Your task to perform on an android device: turn on airplane mode Image 0: 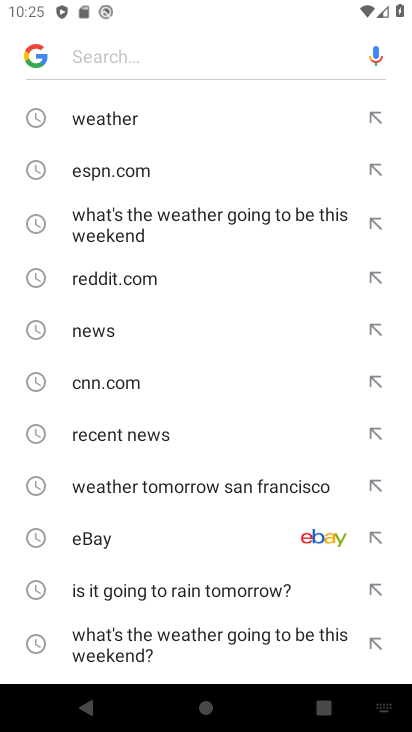
Step 0: press home button
Your task to perform on an android device: turn on airplane mode Image 1: 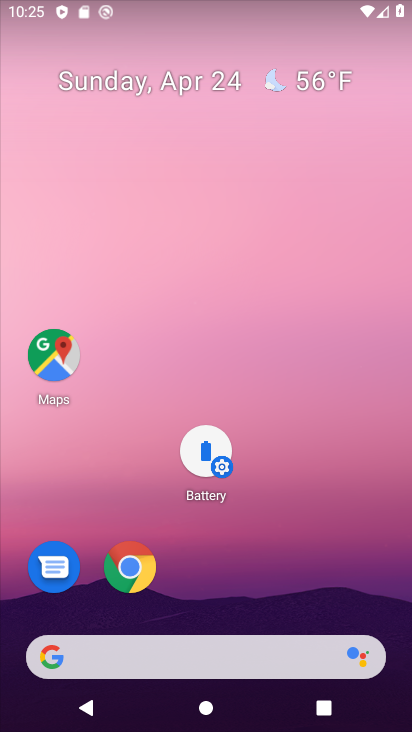
Step 1: drag from (174, 423) to (282, 219)
Your task to perform on an android device: turn on airplane mode Image 2: 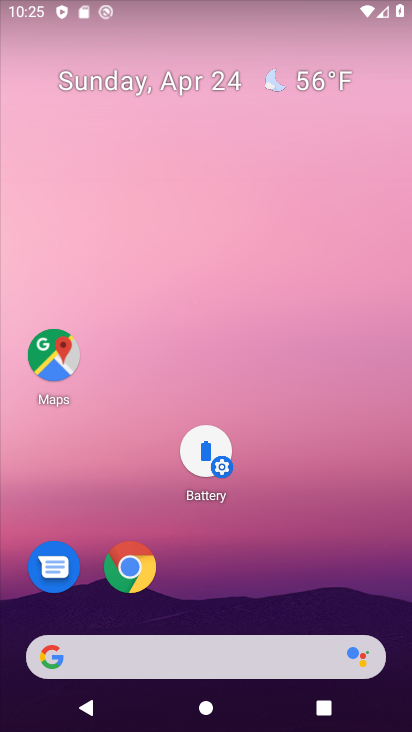
Step 2: drag from (314, 144) to (318, 399)
Your task to perform on an android device: turn on airplane mode Image 3: 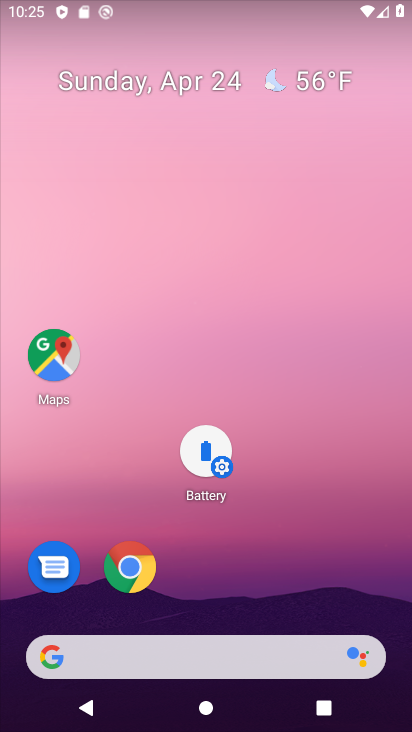
Step 3: drag from (34, 699) to (261, 204)
Your task to perform on an android device: turn on airplane mode Image 4: 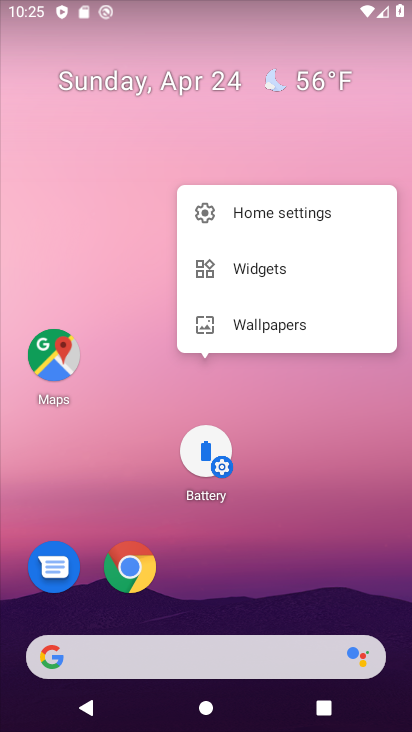
Step 4: drag from (233, 544) to (313, 475)
Your task to perform on an android device: turn on airplane mode Image 5: 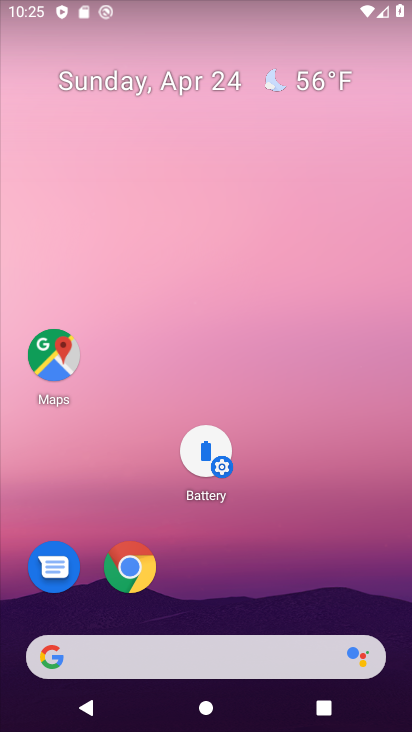
Step 5: drag from (88, 596) to (272, 134)
Your task to perform on an android device: turn on airplane mode Image 6: 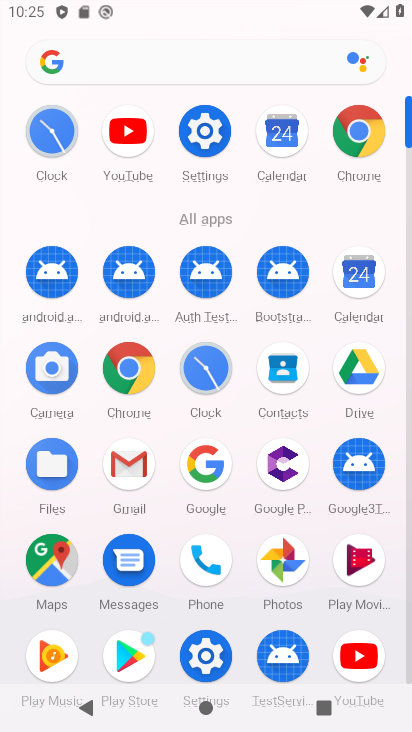
Step 6: click (213, 152)
Your task to perform on an android device: turn on airplane mode Image 7: 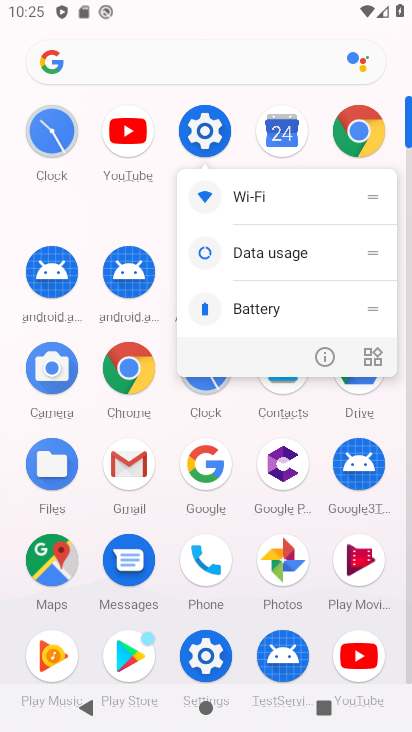
Step 7: click (328, 351)
Your task to perform on an android device: turn on airplane mode Image 8: 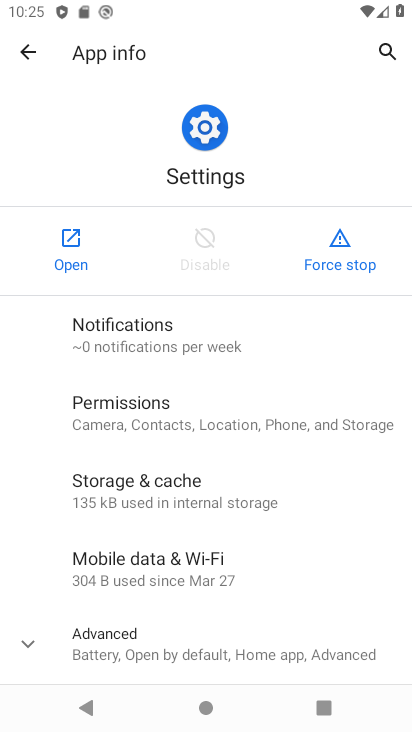
Step 8: click (81, 249)
Your task to perform on an android device: turn on airplane mode Image 9: 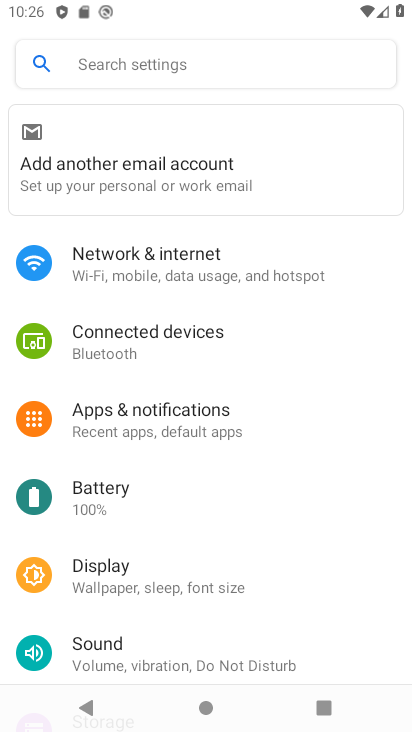
Step 9: click (139, 284)
Your task to perform on an android device: turn on airplane mode Image 10: 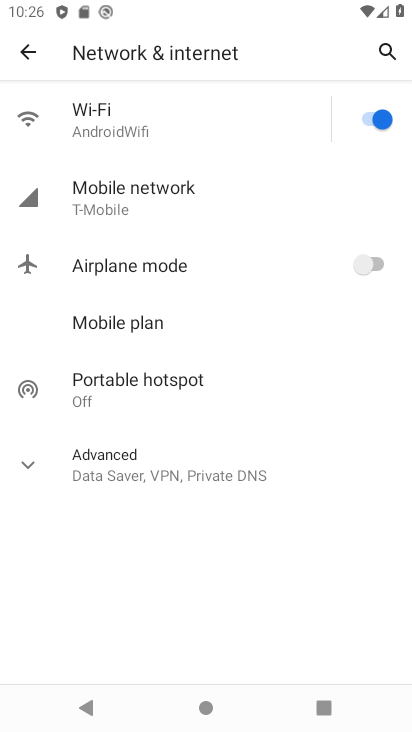
Step 10: click (366, 261)
Your task to perform on an android device: turn on airplane mode Image 11: 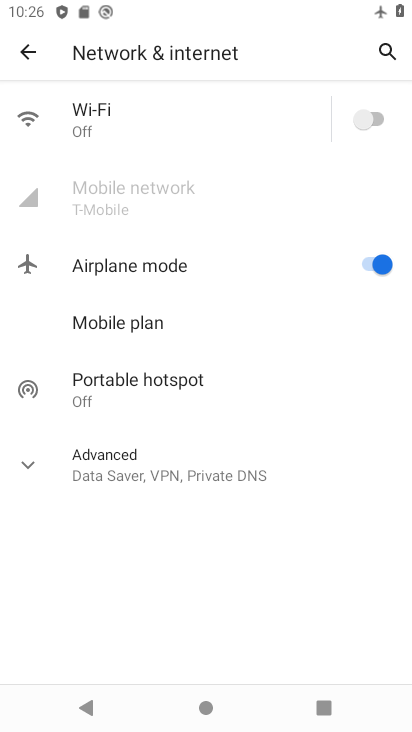
Step 11: task complete